Your task to perform on an android device: create a new album in the google photos Image 0: 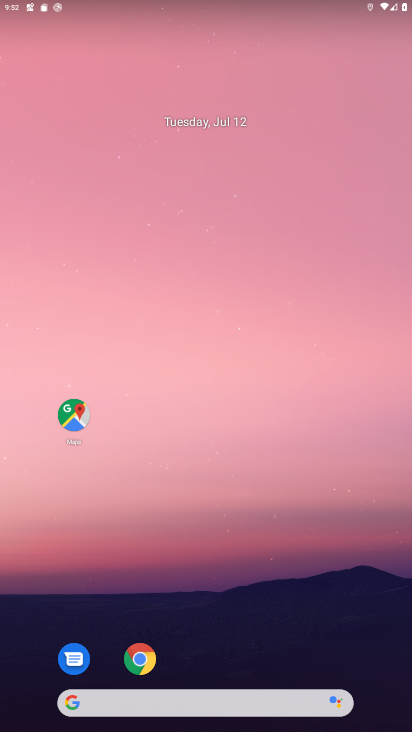
Step 0: press home button
Your task to perform on an android device: create a new album in the google photos Image 1: 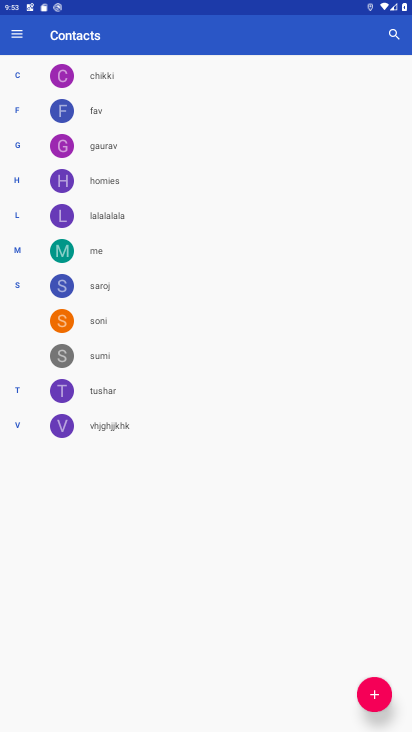
Step 1: drag from (128, 20) to (181, 15)
Your task to perform on an android device: create a new album in the google photos Image 2: 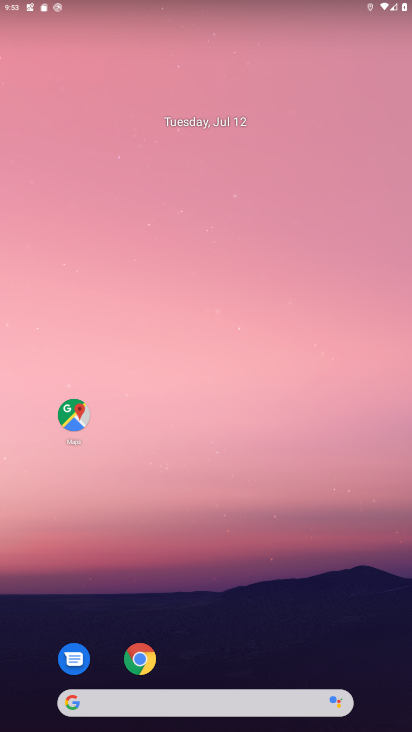
Step 2: drag from (195, 547) to (166, 9)
Your task to perform on an android device: create a new album in the google photos Image 3: 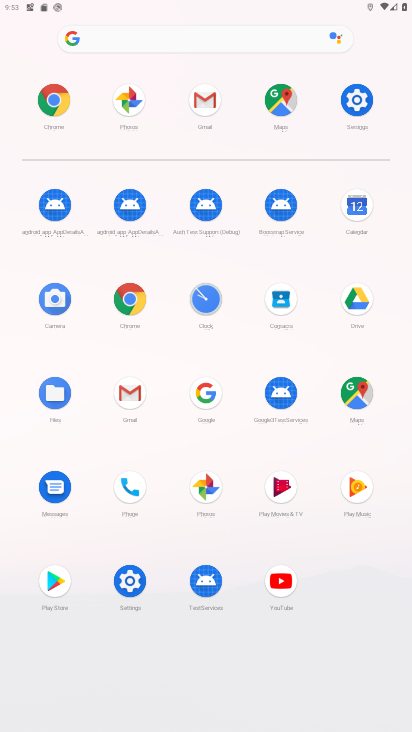
Step 3: click (211, 494)
Your task to perform on an android device: create a new album in the google photos Image 4: 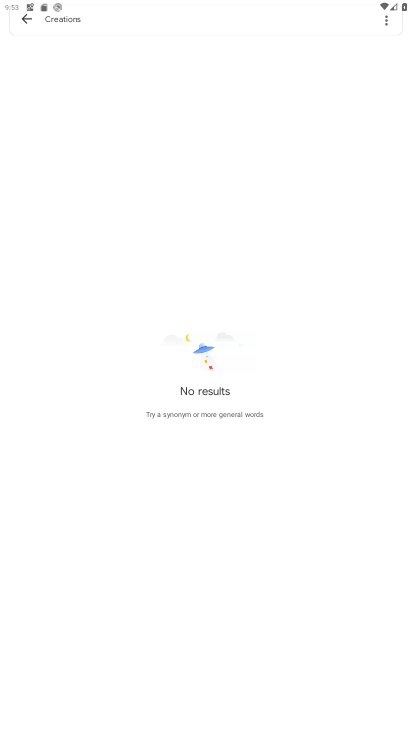
Step 4: click (22, 22)
Your task to perform on an android device: create a new album in the google photos Image 5: 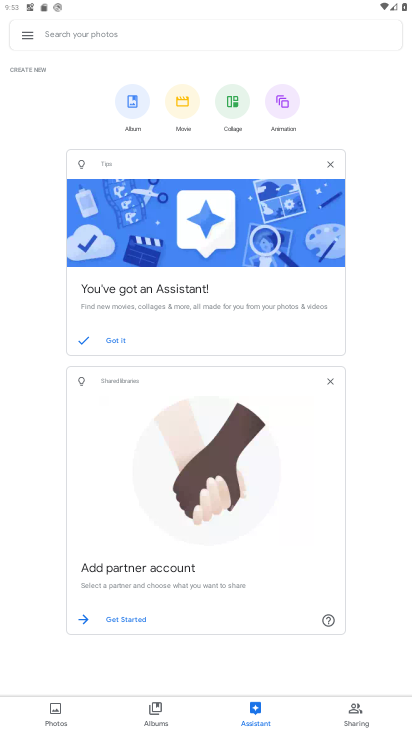
Step 5: click (33, 34)
Your task to perform on an android device: create a new album in the google photos Image 6: 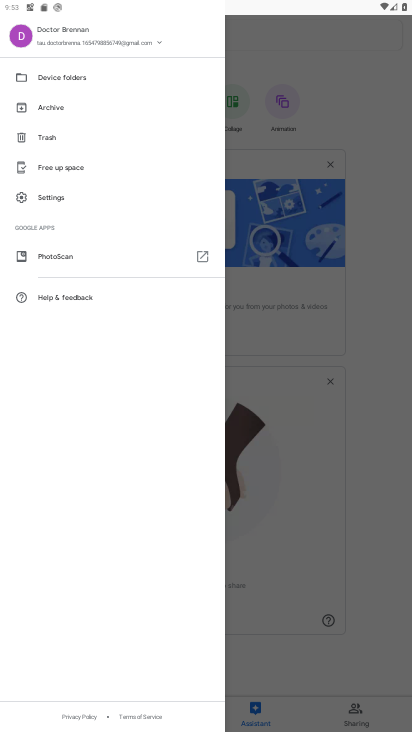
Step 6: task complete